Your task to perform on an android device: delete a single message in the gmail app Image 0: 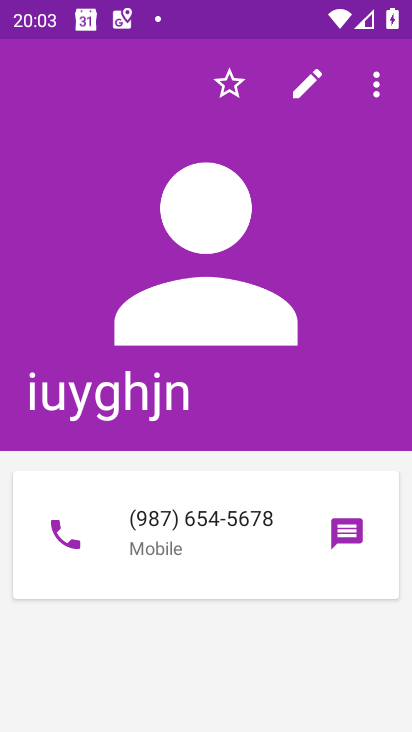
Step 0: press home button
Your task to perform on an android device: delete a single message in the gmail app Image 1: 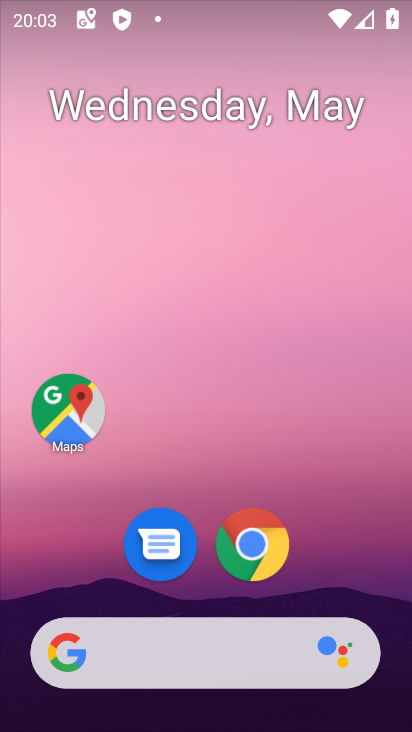
Step 1: drag from (203, 588) to (179, 112)
Your task to perform on an android device: delete a single message in the gmail app Image 2: 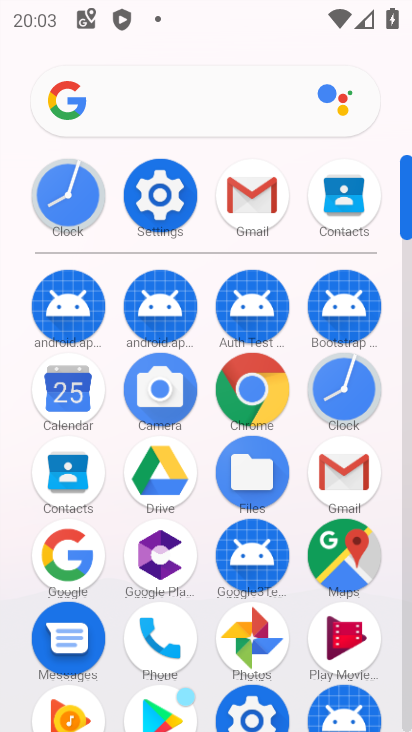
Step 2: click (266, 182)
Your task to perform on an android device: delete a single message in the gmail app Image 3: 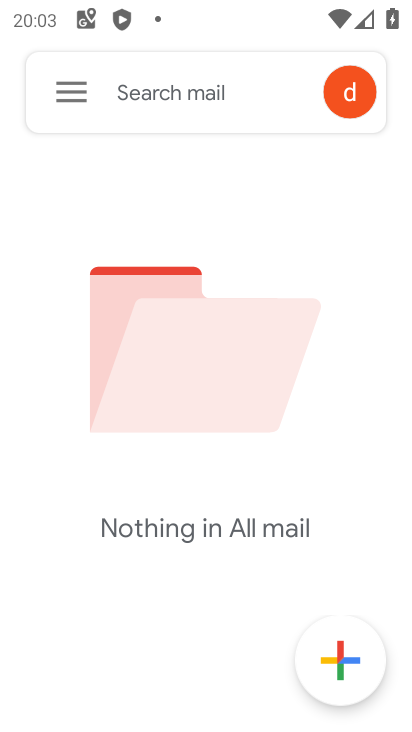
Step 3: task complete